Your task to perform on an android device: Search for pizza restaurants on Maps Image 0: 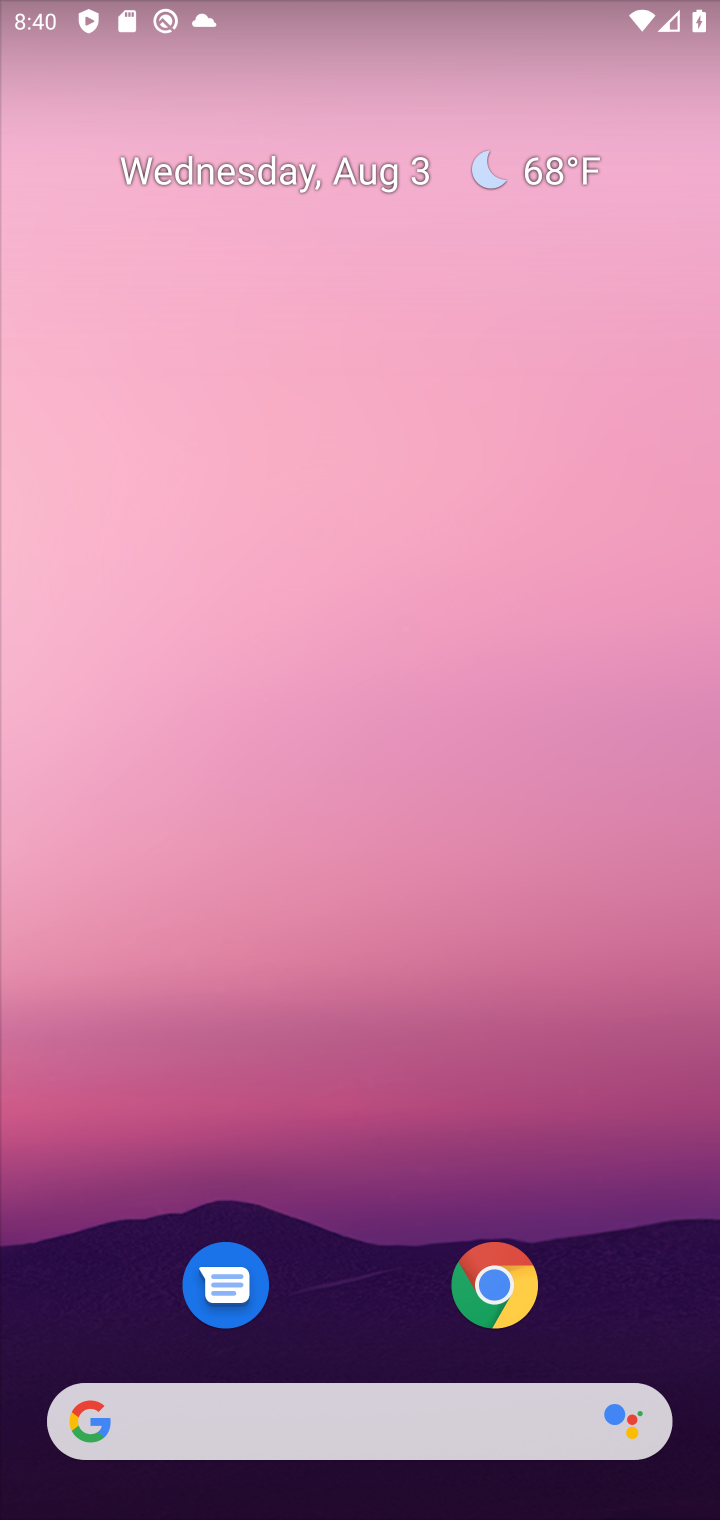
Step 0: drag from (631, 1315) to (465, 297)
Your task to perform on an android device: Search for pizza restaurants on Maps Image 1: 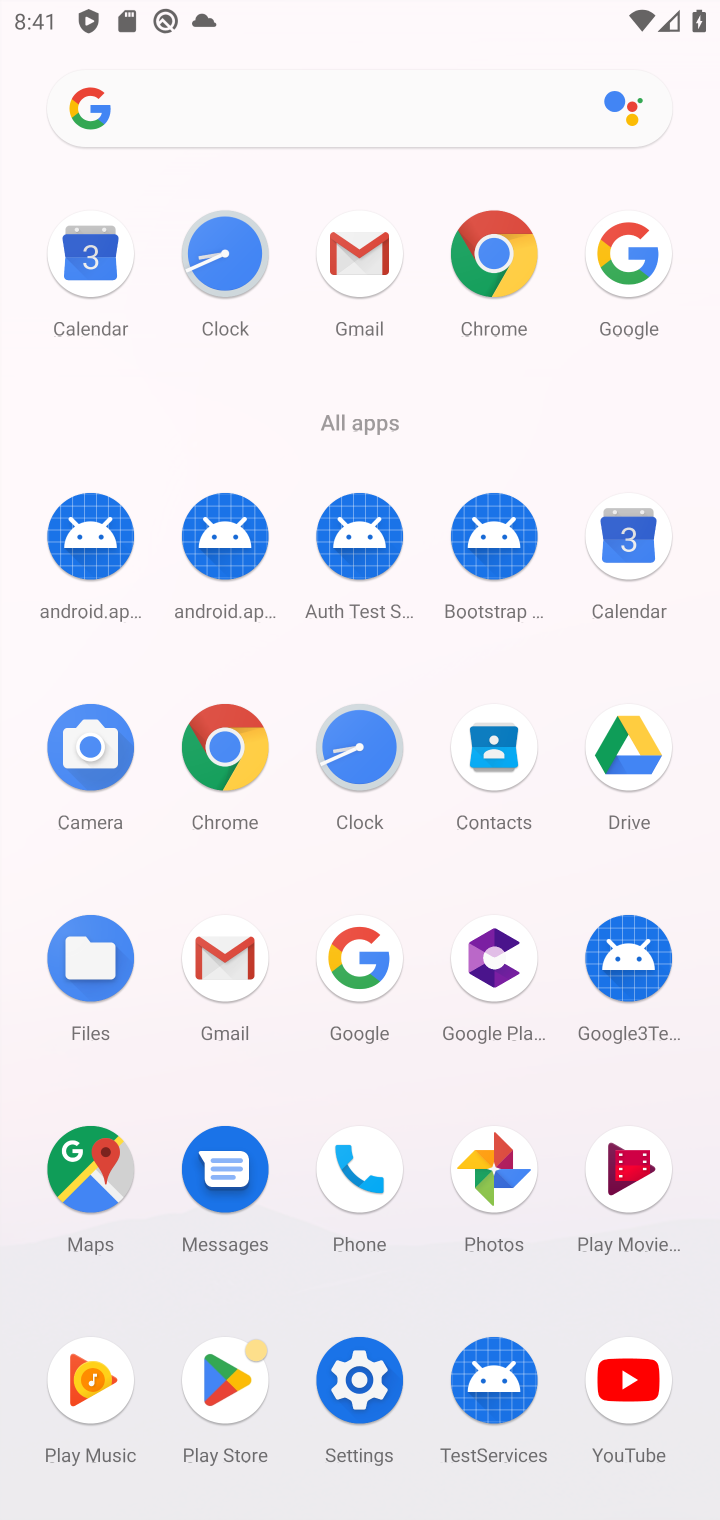
Step 1: click (90, 1175)
Your task to perform on an android device: Search for pizza restaurants on Maps Image 2: 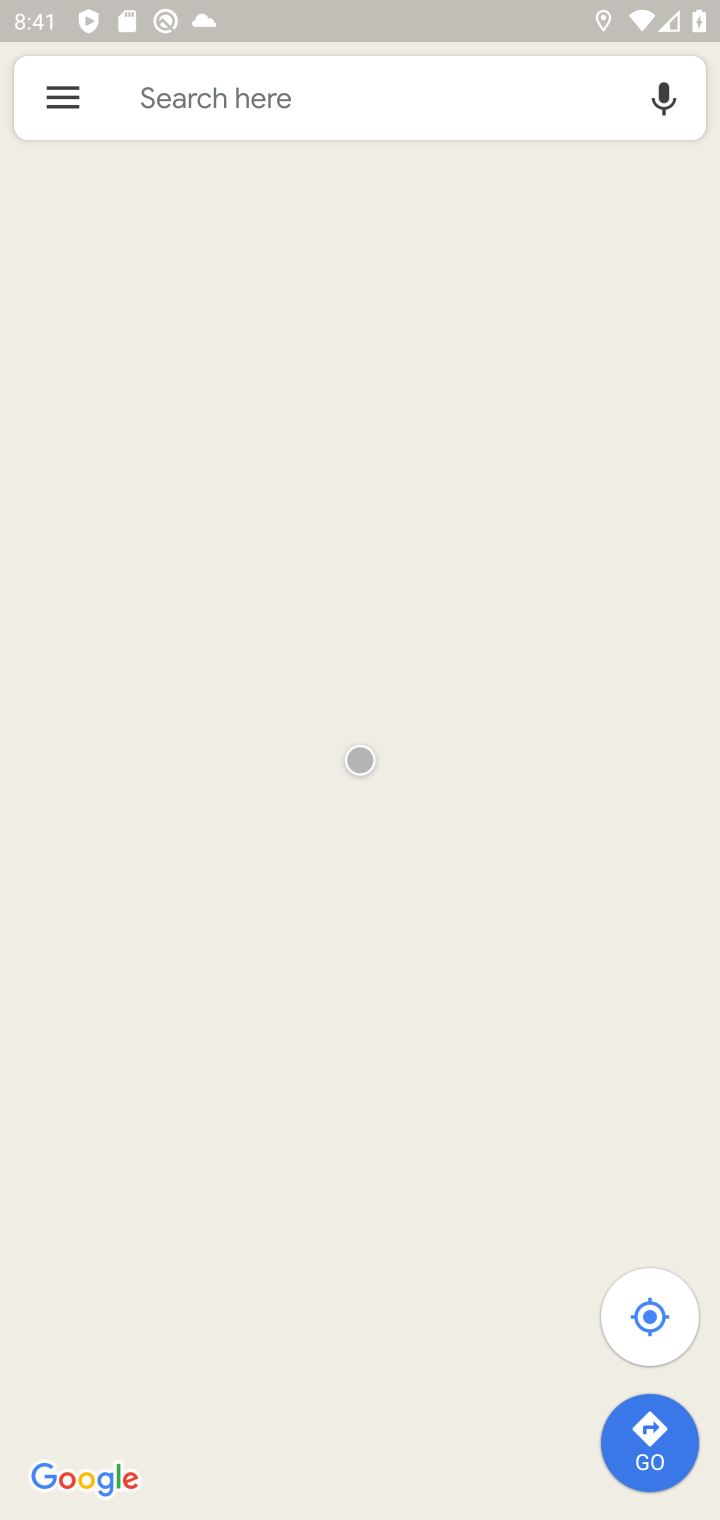
Step 2: click (402, 89)
Your task to perform on an android device: Search for pizza restaurants on Maps Image 3: 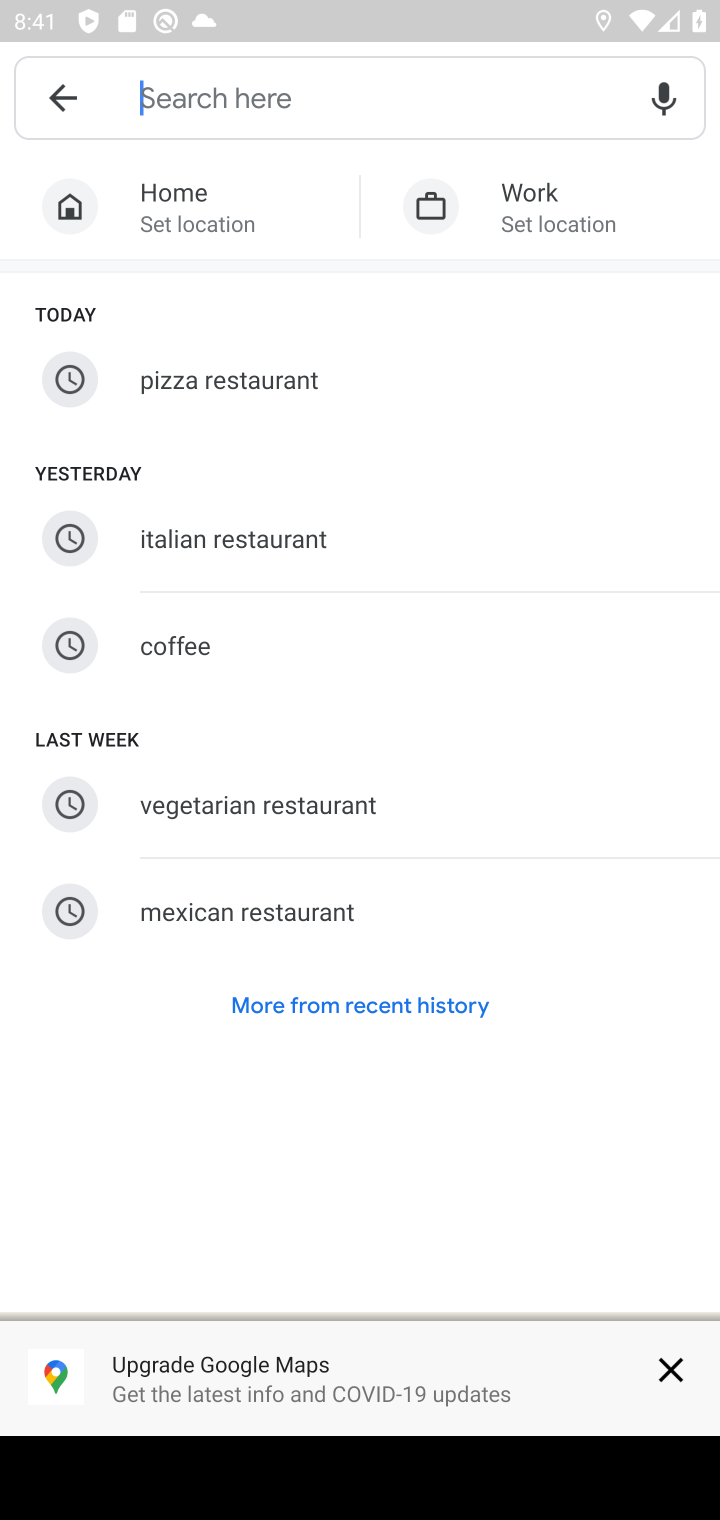
Step 3: click (175, 369)
Your task to perform on an android device: Search for pizza restaurants on Maps Image 4: 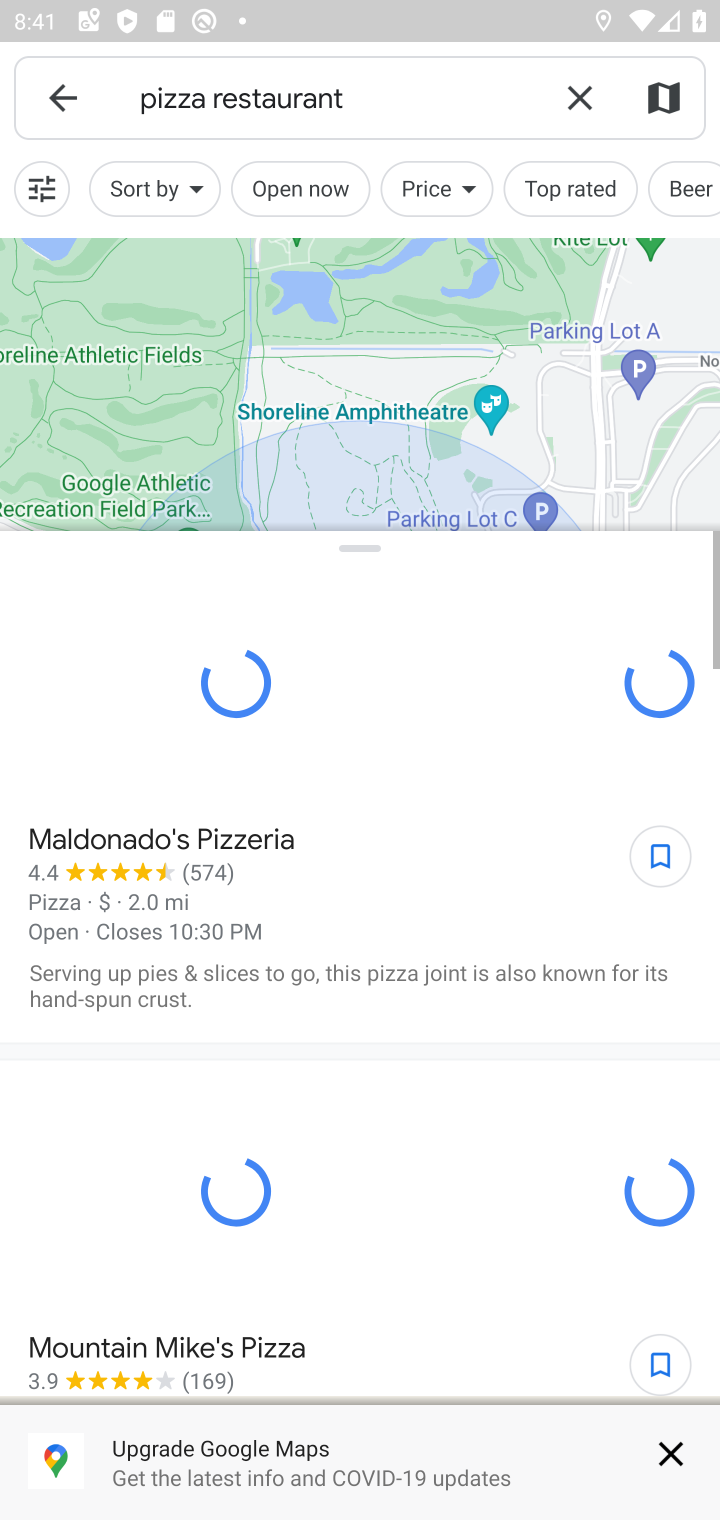
Step 4: task complete